Your task to perform on an android device: Open battery settings Image 0: 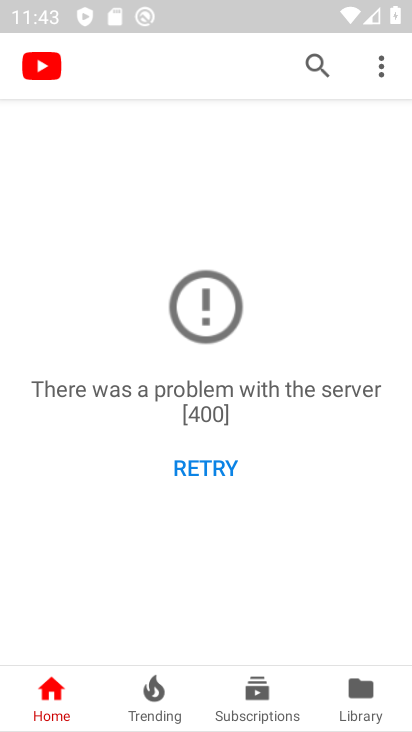
Step 0: press back button
Your task to perform on an android device: Open battery settings Image 1: 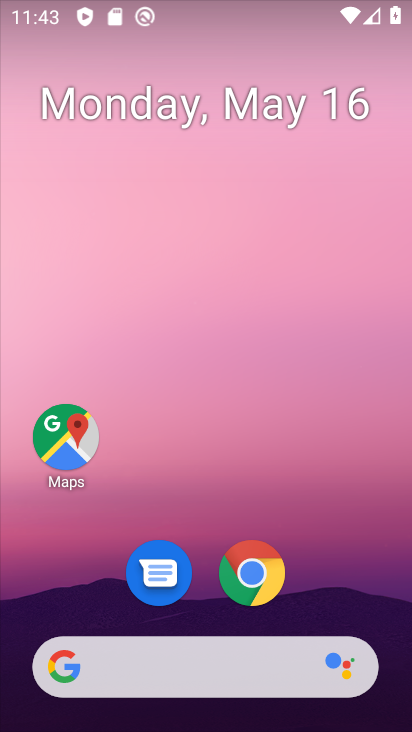
Step 1: drag from (210, 643) to (270, 5)
Your task to perform on an android device: Open battery settings Image 2: 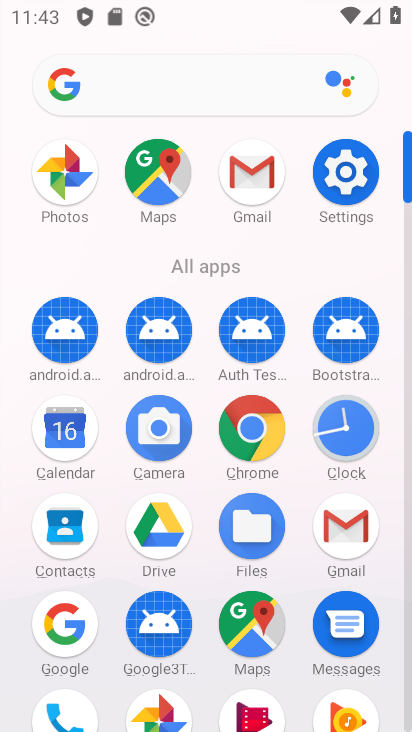
Step 2: click (343, 188)
Your task to perform on an android device: Open battery settings Image 3: 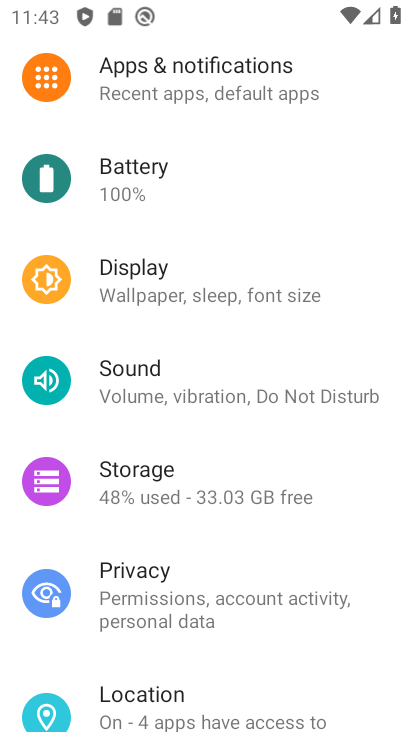
Step 3: click (135, 171)
Your task to perform on an android device: Open battery settings Image 4: 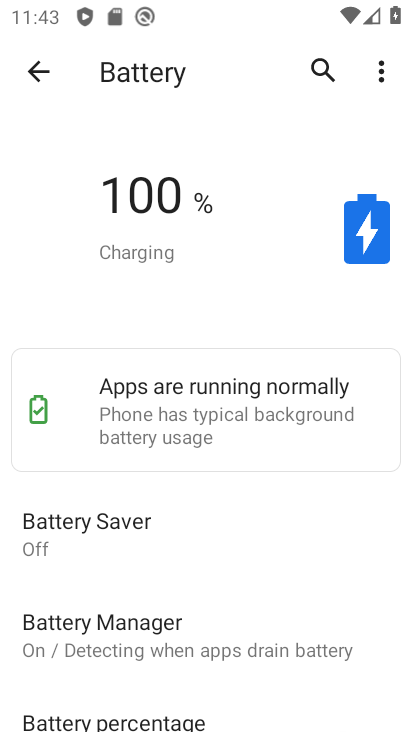
Step 4: task complete